Your task to perform on an android device: Go to accessibility settings Image 0: 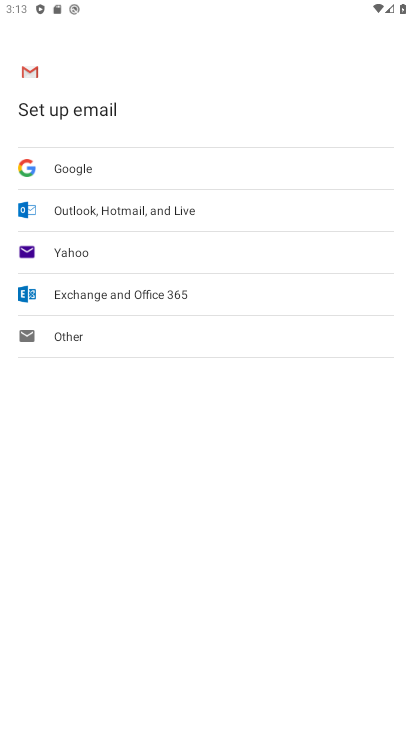
Step 0: press home button
Your task to perform on an android device: Go to accessibility settings Image 1: 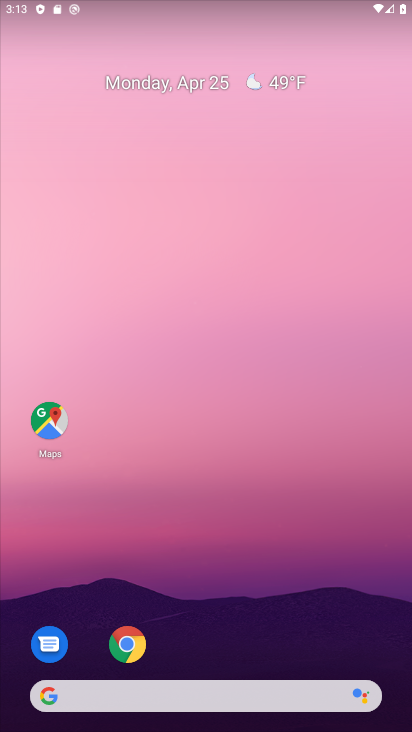
Step 1: drag from (250, 657) to (290, 15)
Your task to perform on an android device: Go to accessibility settings Image 2: 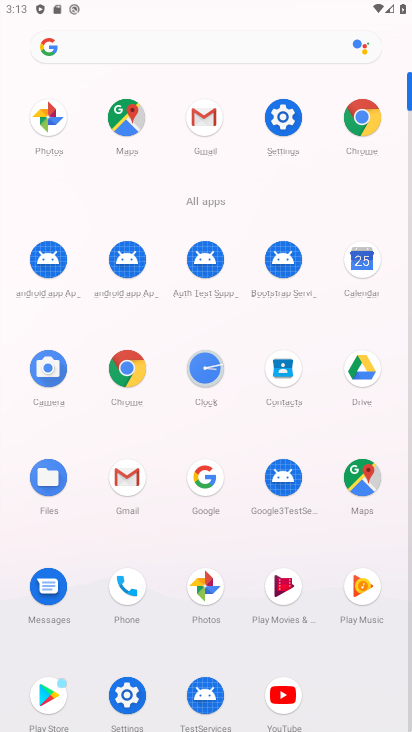
Step 2: click (288, 127)
Your task to perform on an android device: Go to accessibility settings Image 3: 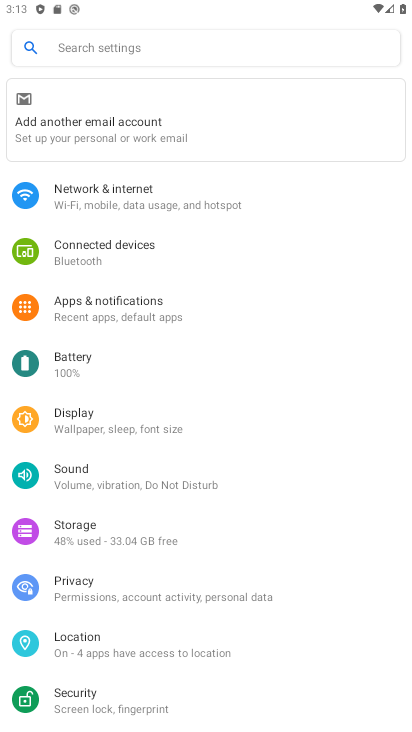
Step 3: drag from (124, 674) to (72, 345)
Your task to perform on an android device: Go to accessibility settings Image 4: 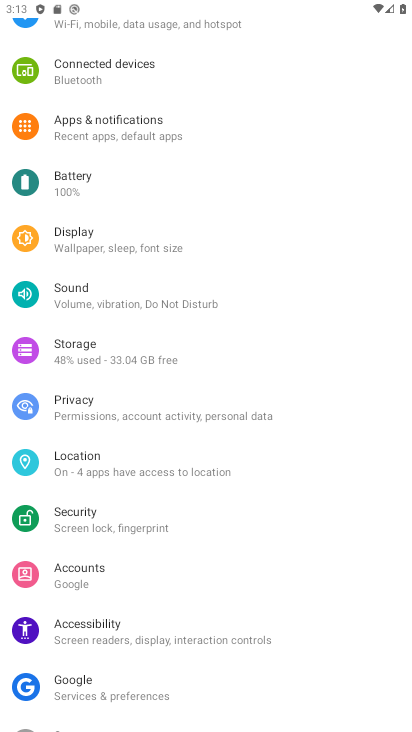
Step 4: click (152, 643)
Your task to perform on an android device: Go to accessibility settings Image 5: 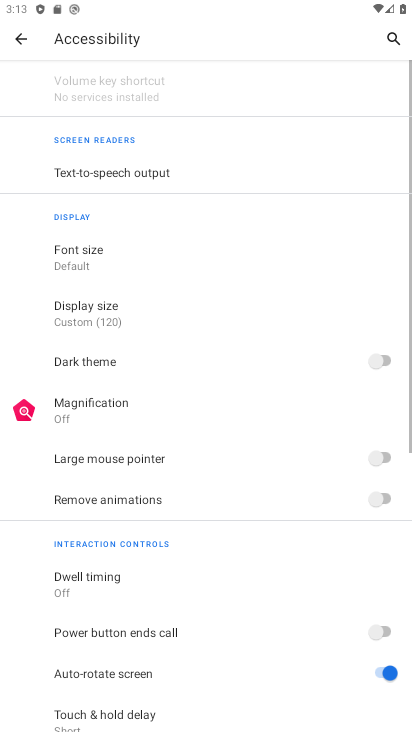
Step 5: task complete